Your task to perform on an android device: toggle improve location accuracy Image 0: 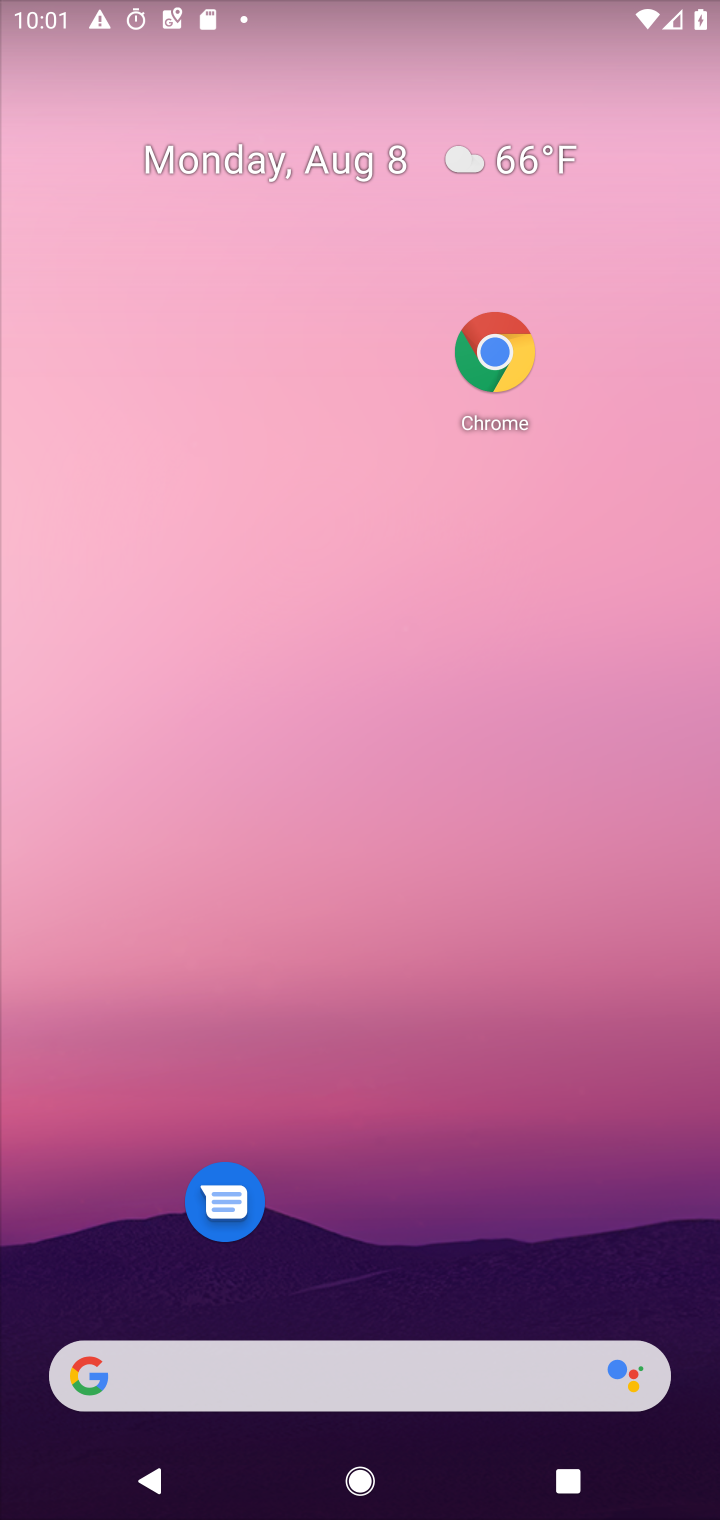
Step 0: click (549, 264)
Your task to perform on an android device: toggle improve location accuracy Image 1: 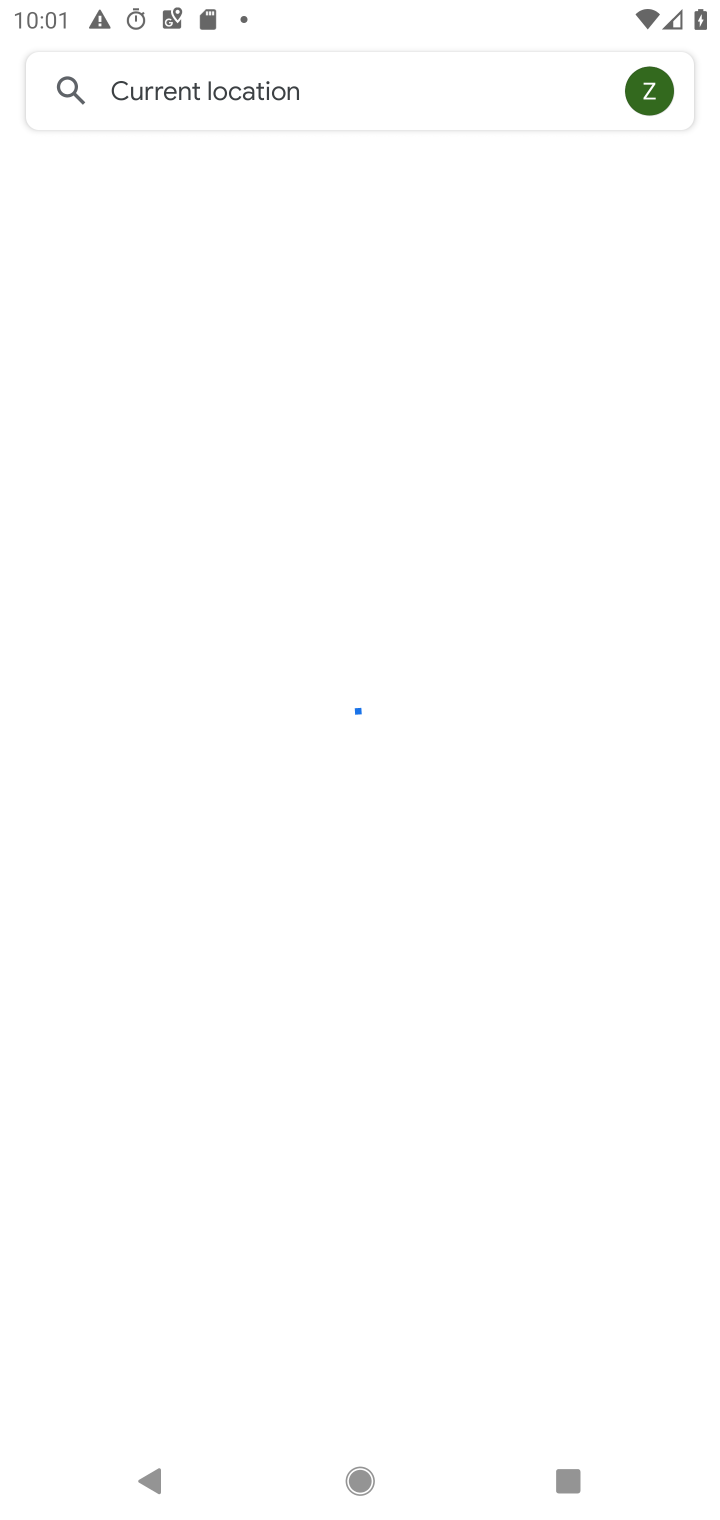
Step 1: press home button
Your task to perform on an android device: toggle improve location accuracy Image 2: 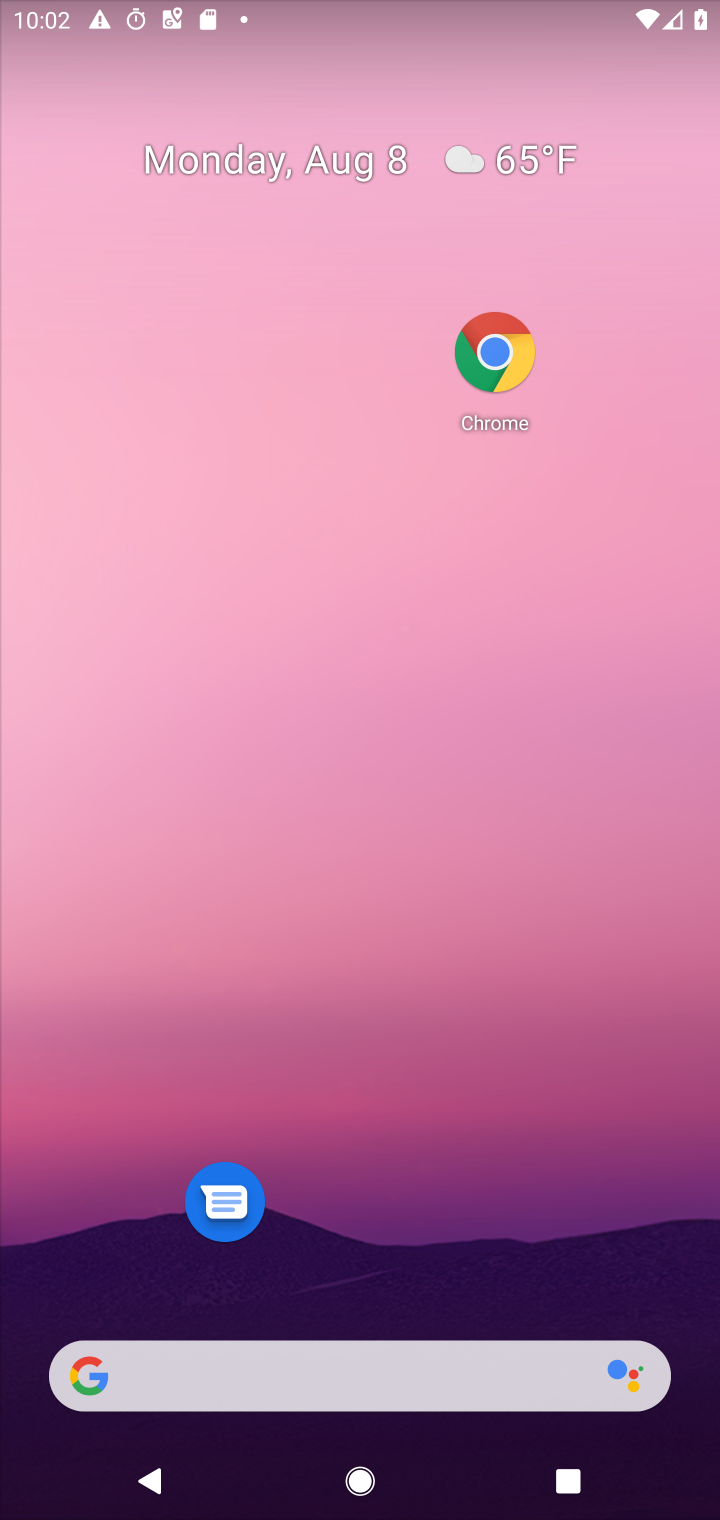
Step 2: drag from (422, 1237) to (567, 41)
Your task to perform on an android device: toggle improve location accuracy Image 3: 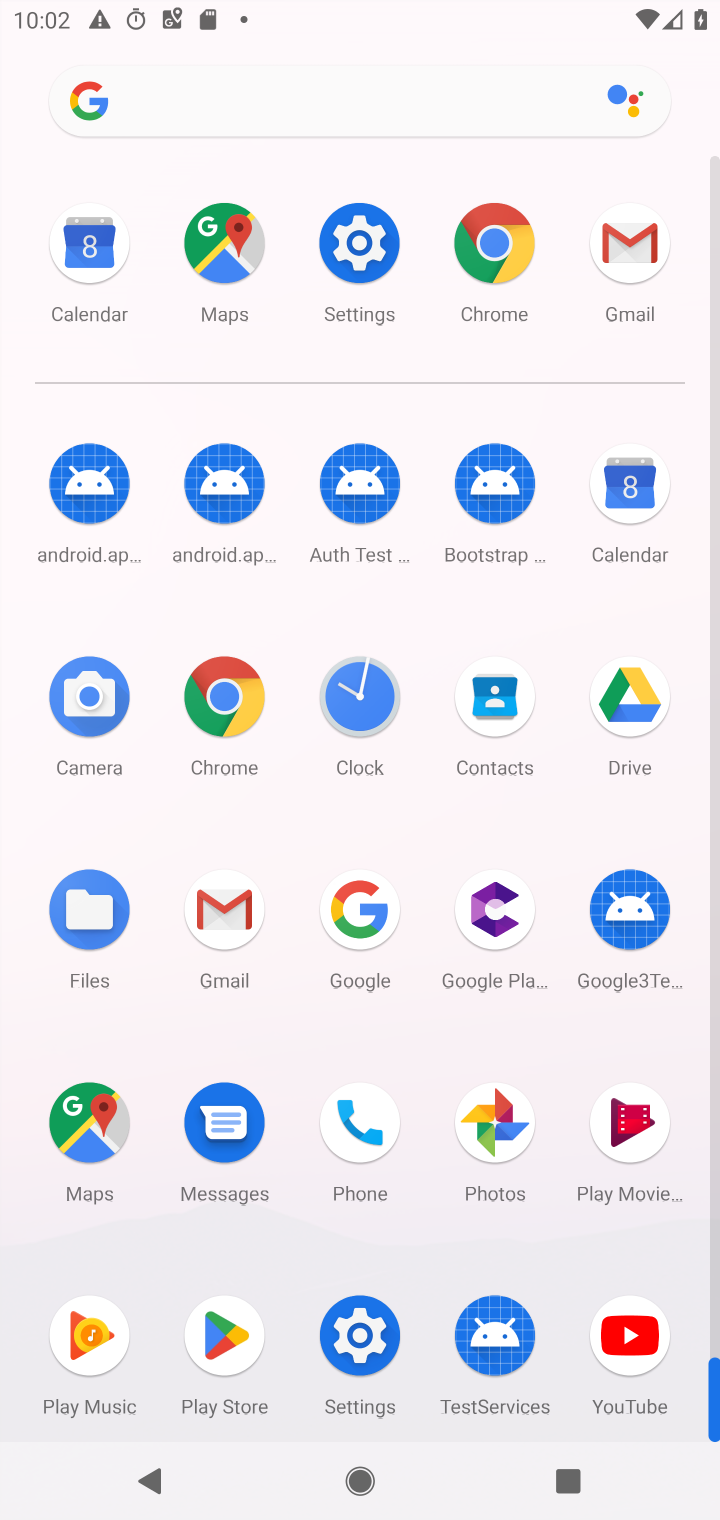
Step 3: click (362, 252)
Your task to perform on an android device: toggle improve location accuracy Image 4: 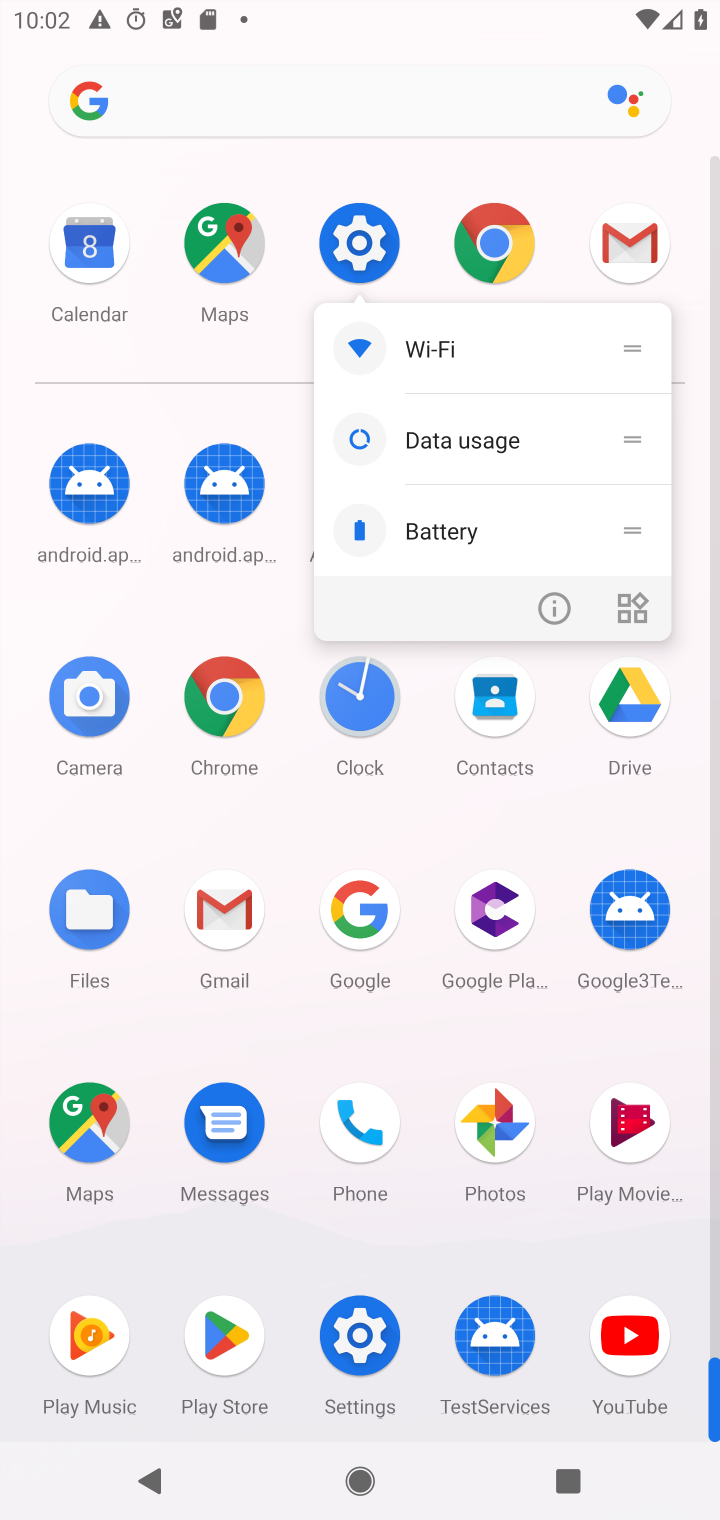
Step 4: click (362, 238)
Your task to perform on an android device: toggle improve location accuracy Image 5: 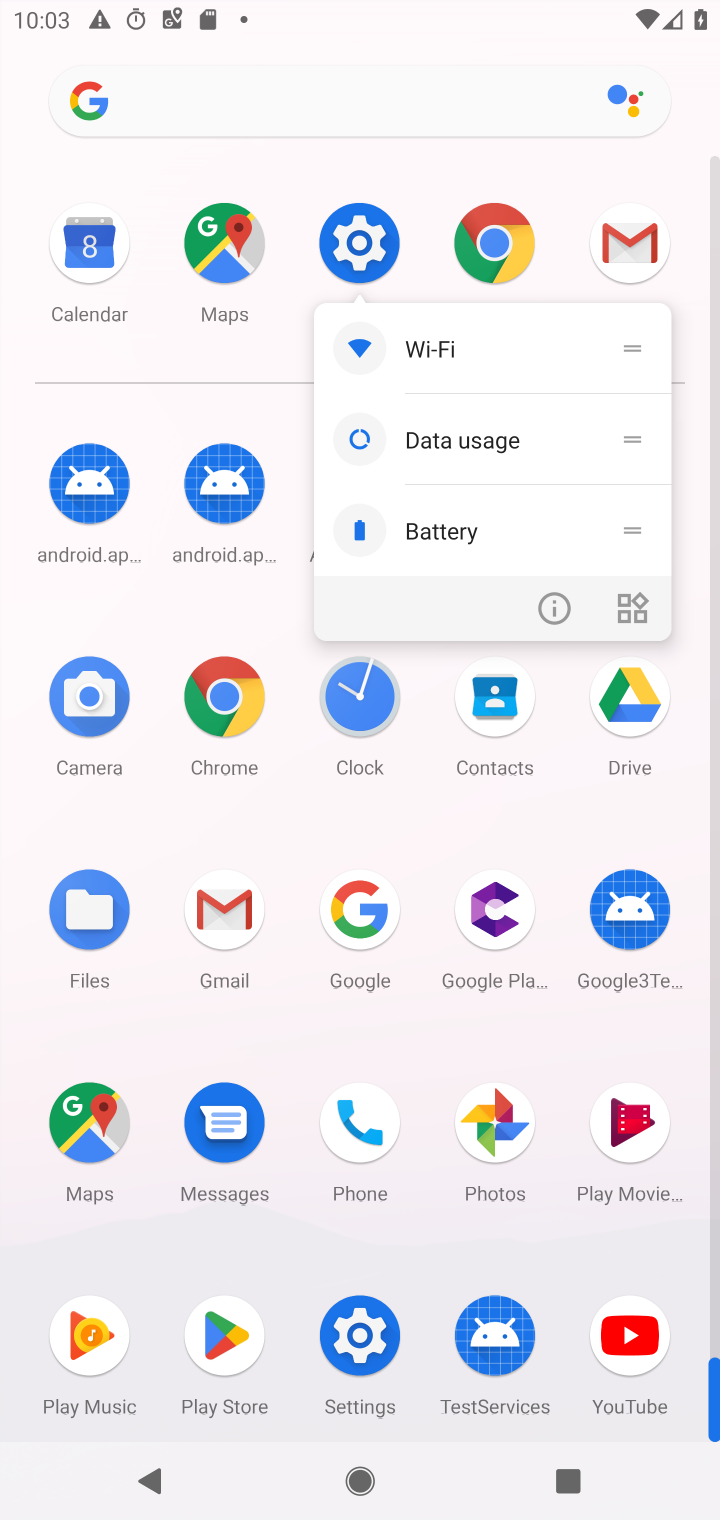
Step 5: click (359, 228)
Your task to perform on an android device: toggle improve location accuracy Image 6: 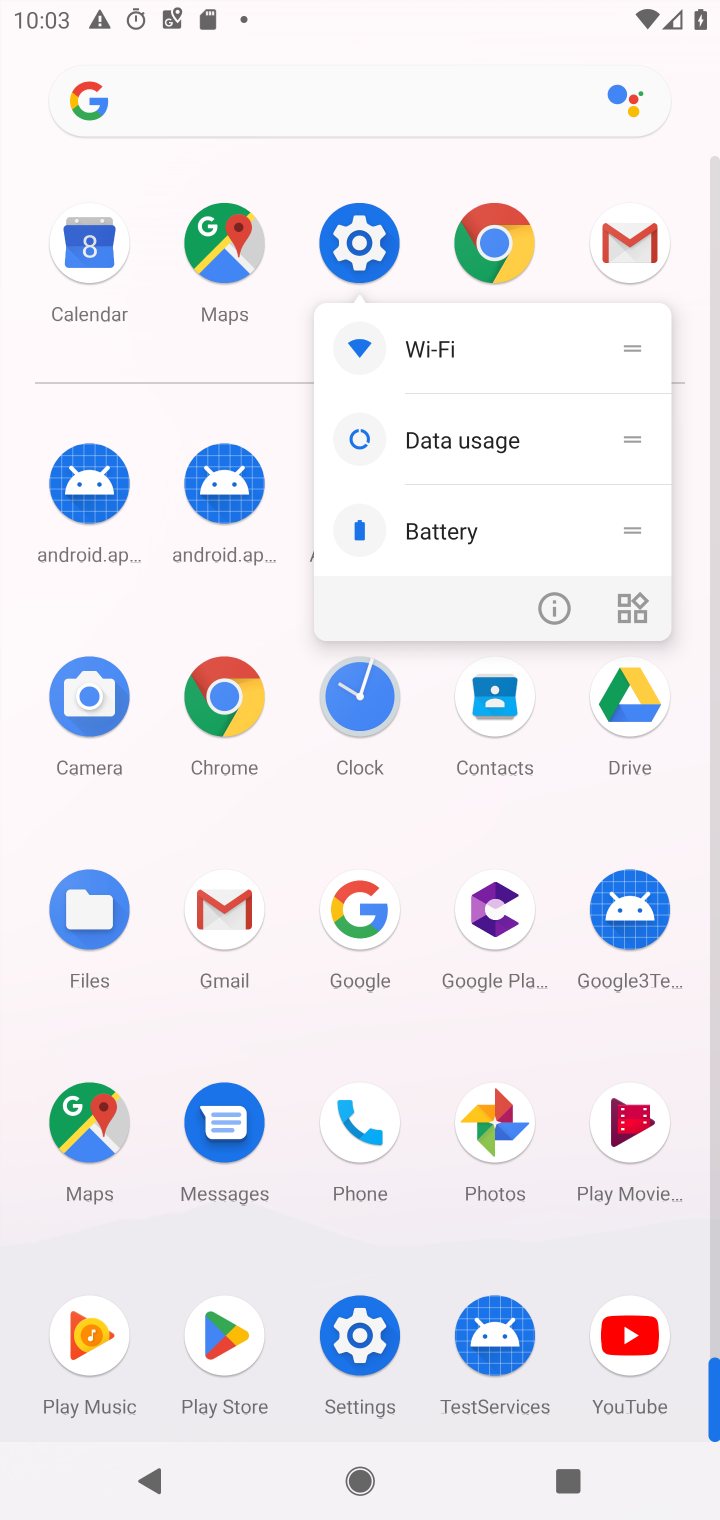
Step 6: click (378, 236)
Your task to perform on an android device: toggle improve location accuracy Image 7: 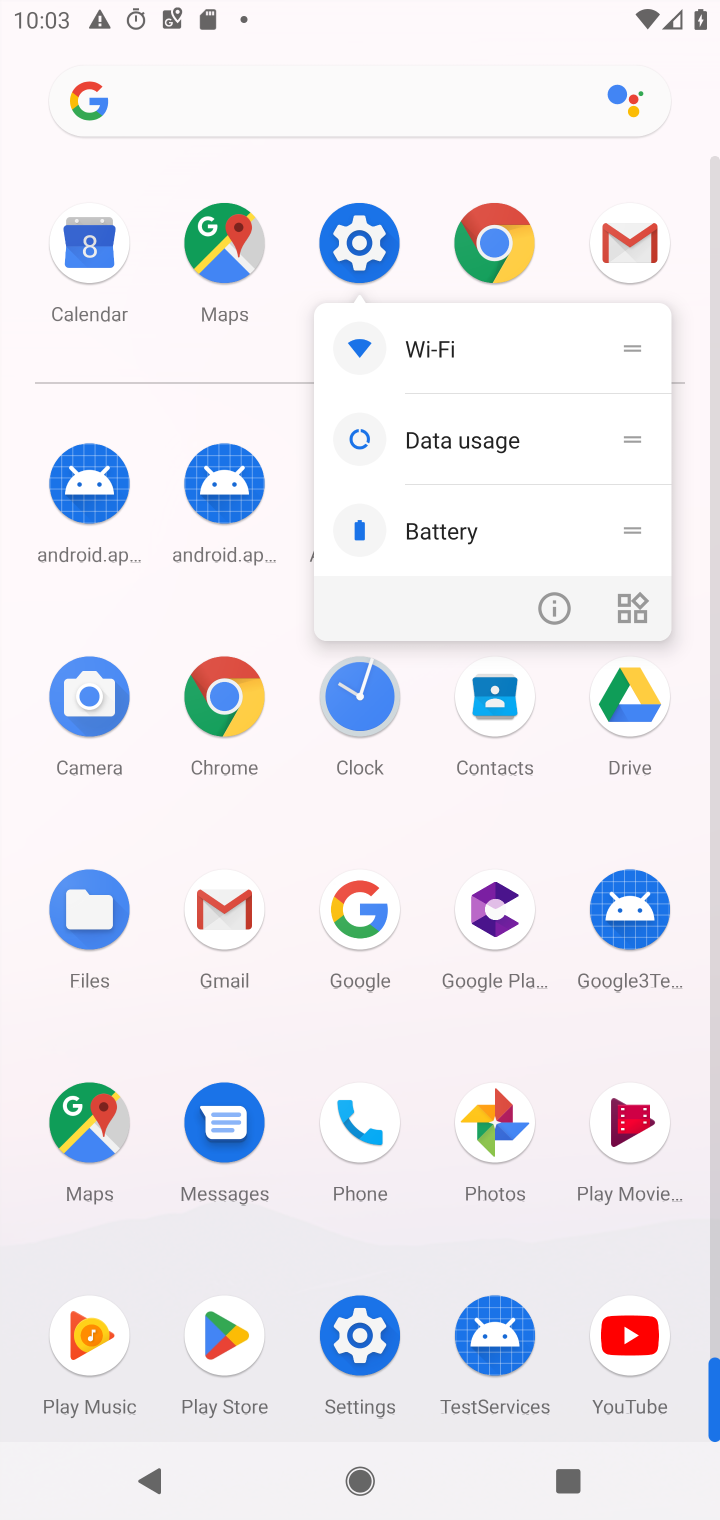
Step 7: click (371, 255)
Your task to perform on an android device: toggle improve location accuracy Image 8: 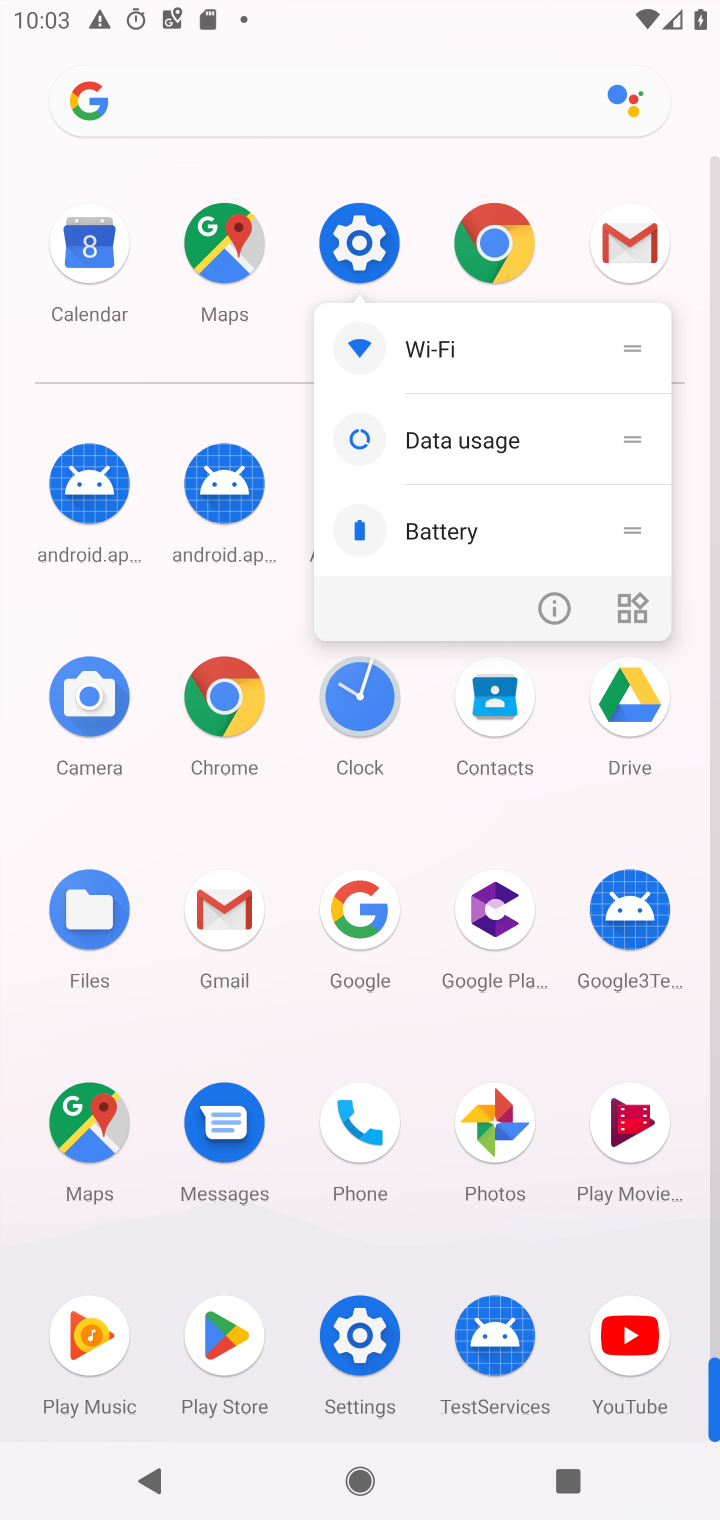
Step 8: click (375, 253)
Your task to perform on an android device: toggle improve location accuracy Image 9: 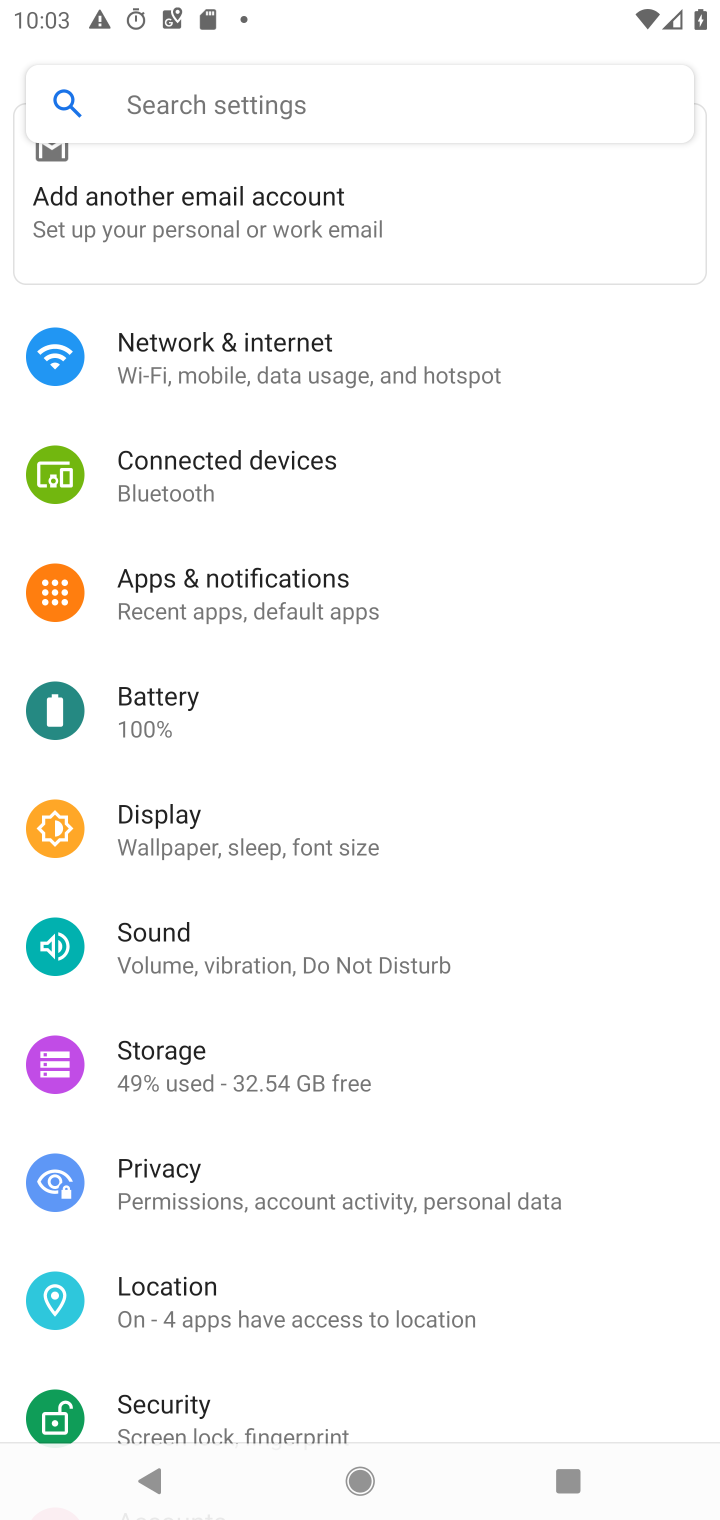
Step 9: click (186, 1311)
Your task to perform on an android device: toggle improve location accuracy Image 10: 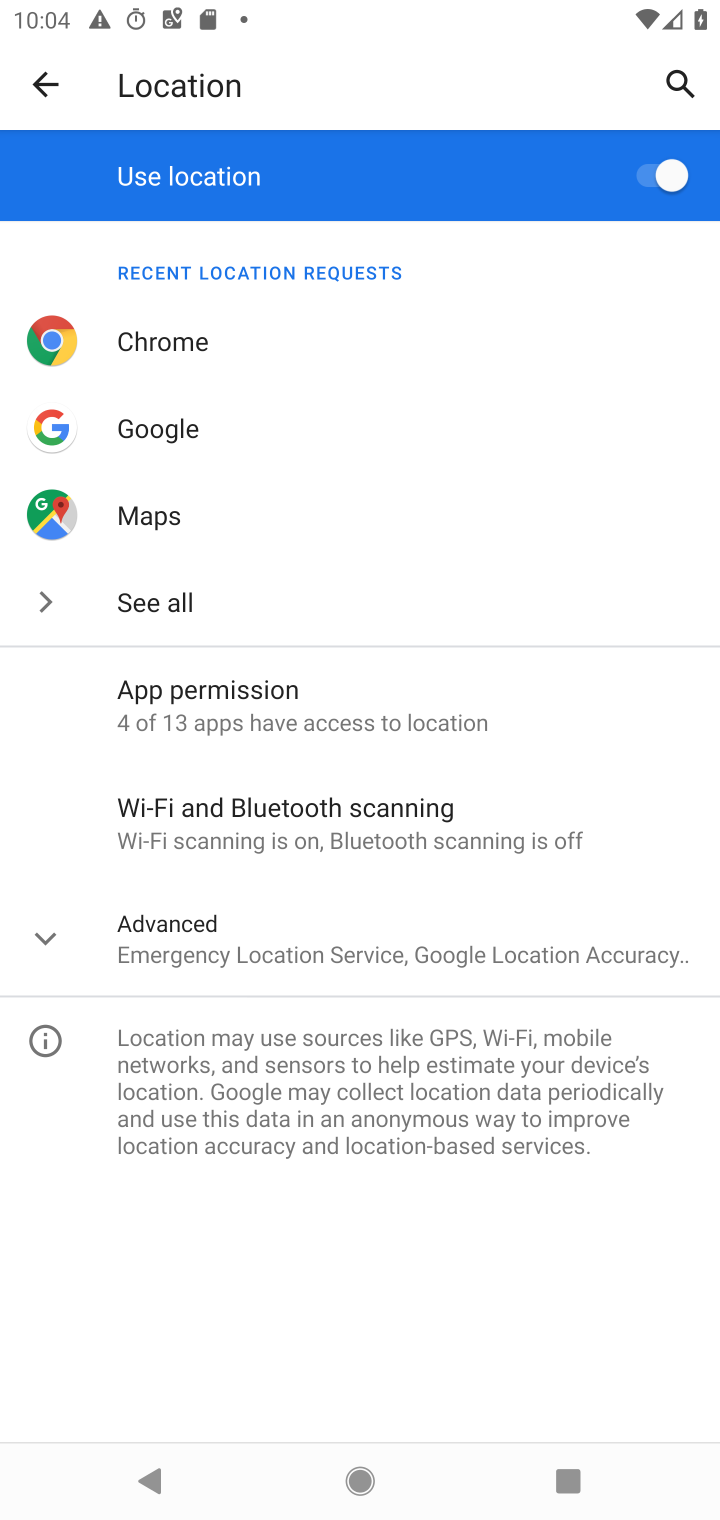
Step 10: click (422, 955)
Your task to perform on an android device: toggle improve location accuracy Image 11: 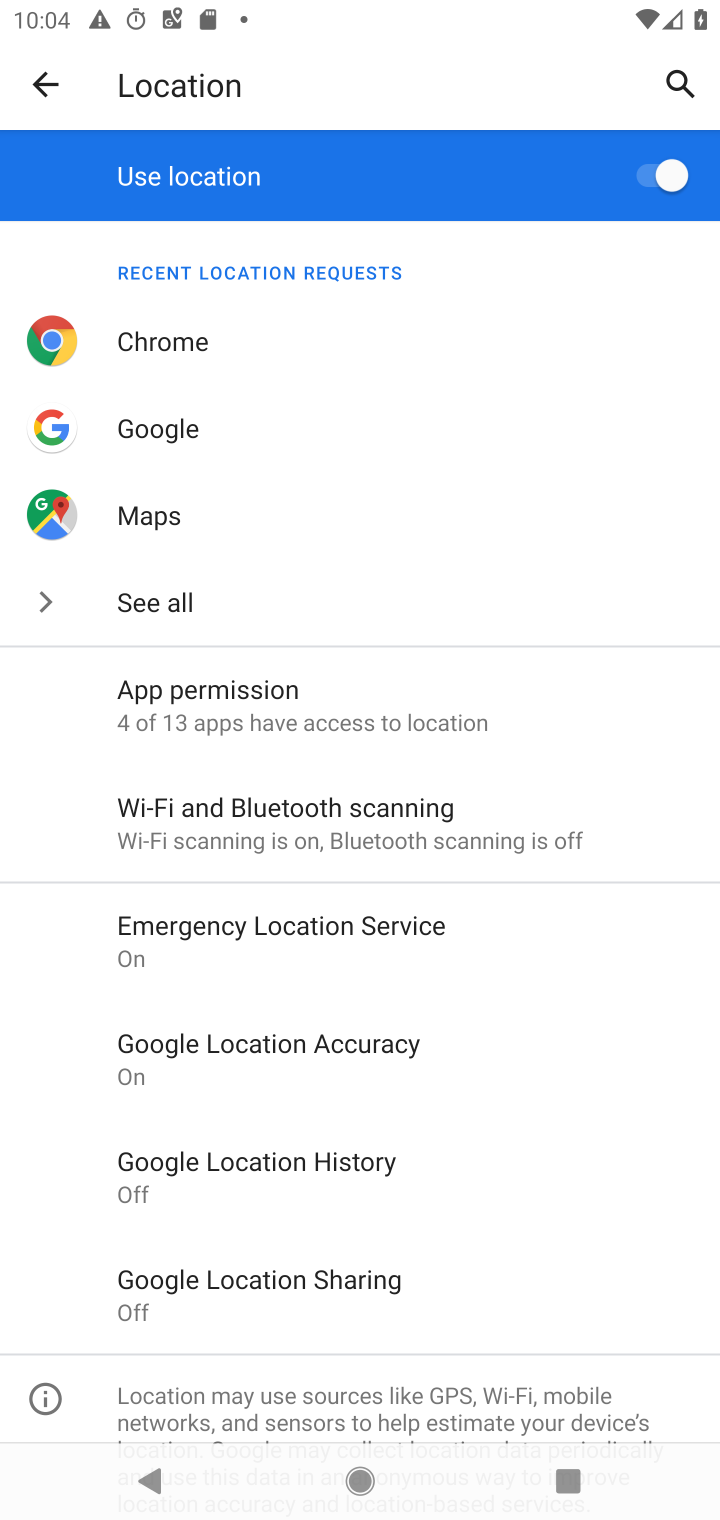
Step 11: click (310, 1057)
Your task to perform on an android device: toggle improve location accuracy Image 12: 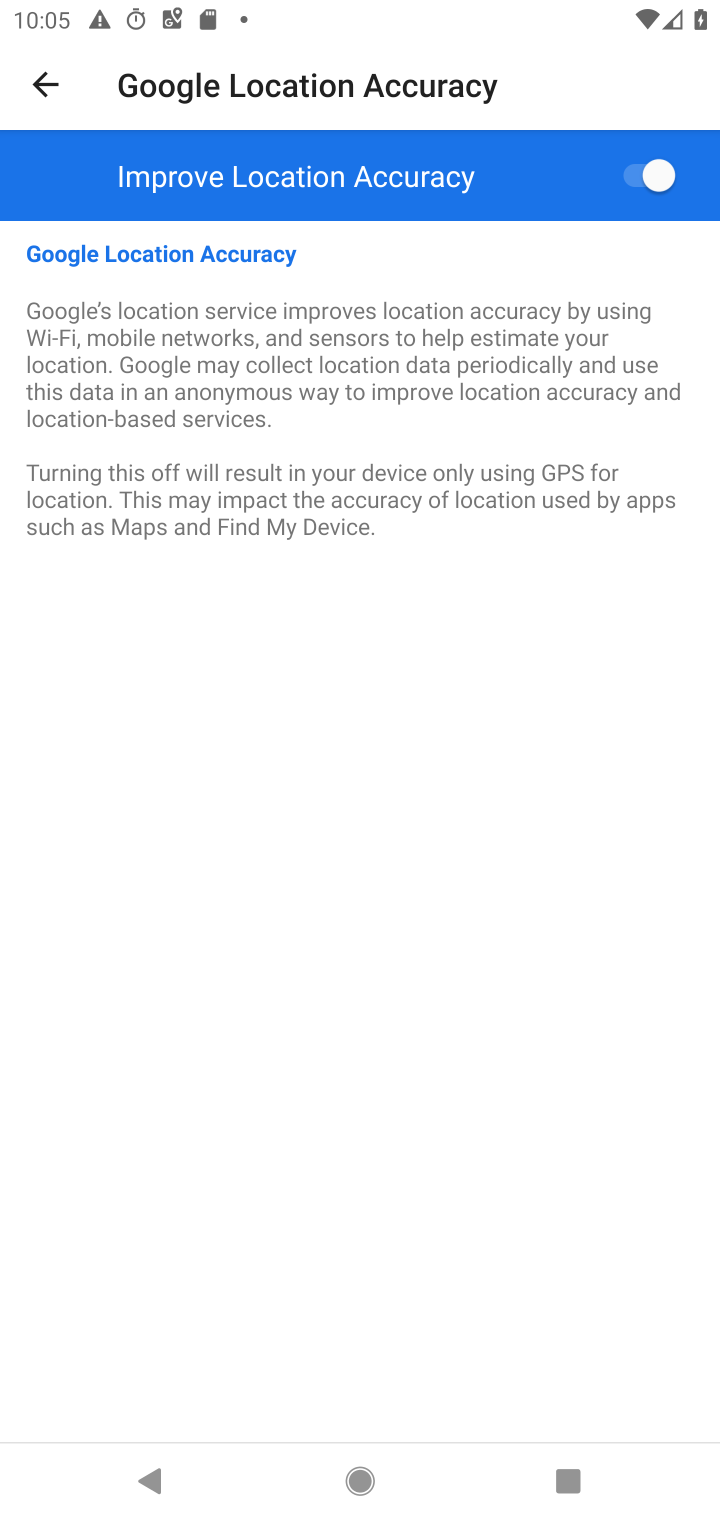
Step 12: click (642, 178)
Your task to perform on an android device: toggle improve location accuracy Image 13: 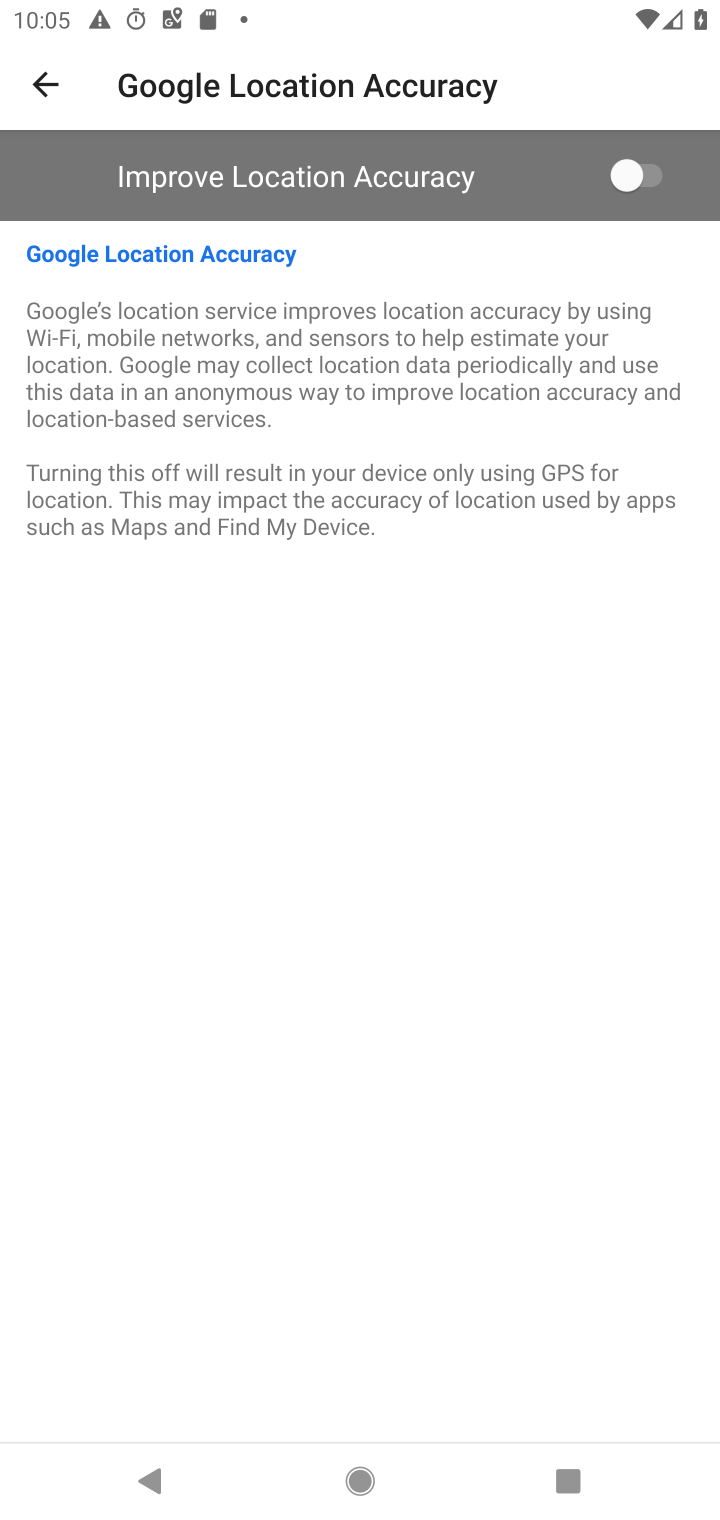
Step 13: task complete